Your task to perform on an android device: turn off sleep mode Image 0: 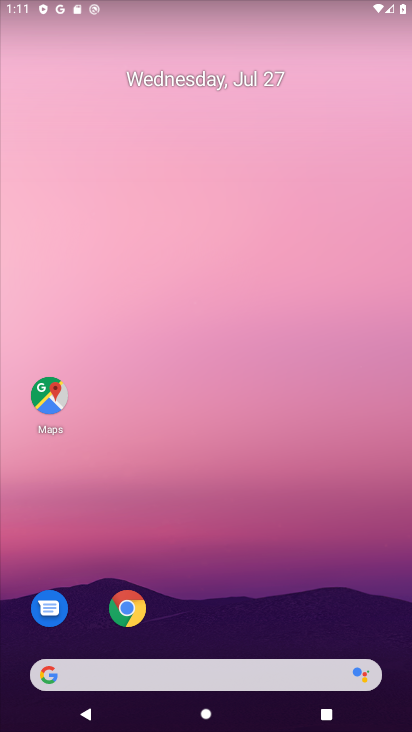
Step 0: drag from (187, 519) to (157, 167)
Your task to perform on an android device: turn off sleep mode Image 1: 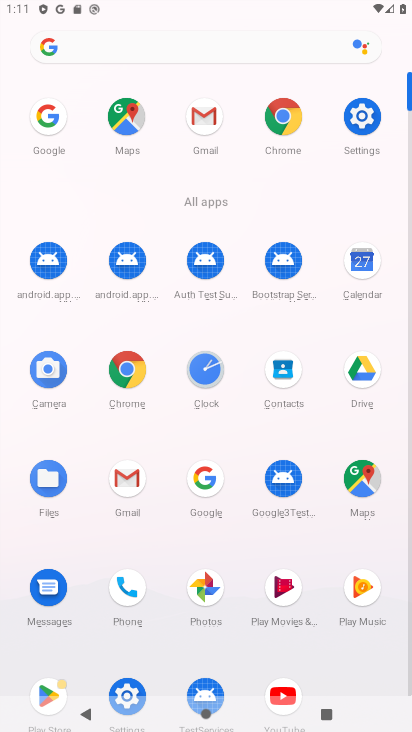
Step 1: click (371, 123)
Your task to perform on an android device: turn off sleep mode Image 2: 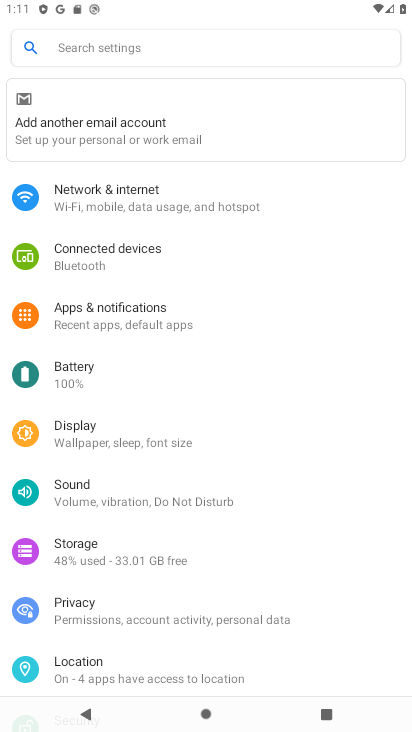
Step 2: task complete